Your task to perform on an android device: all mails in gmail Image 0: 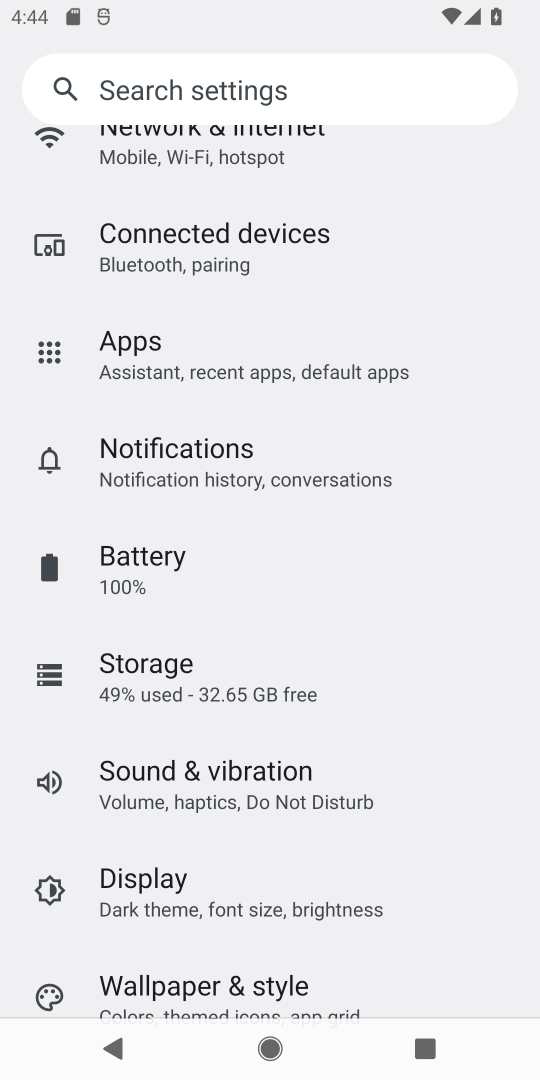
Step 0: press home button
Your task to perform on an android device: all mails in gmail Image 1: 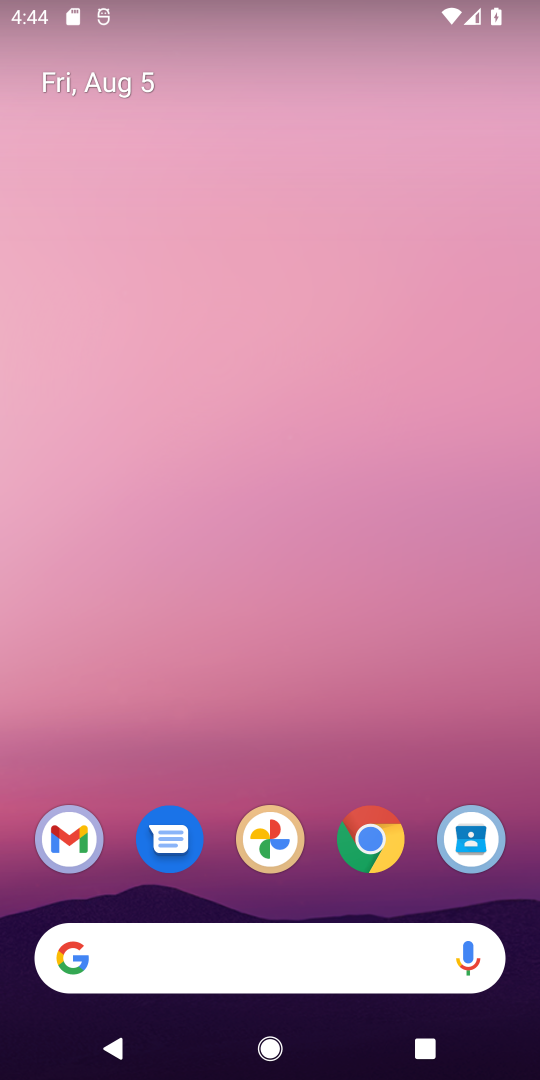
Step 1: click (73, 851)
Your task to perform on an android device: all mails in gmail Image 2: 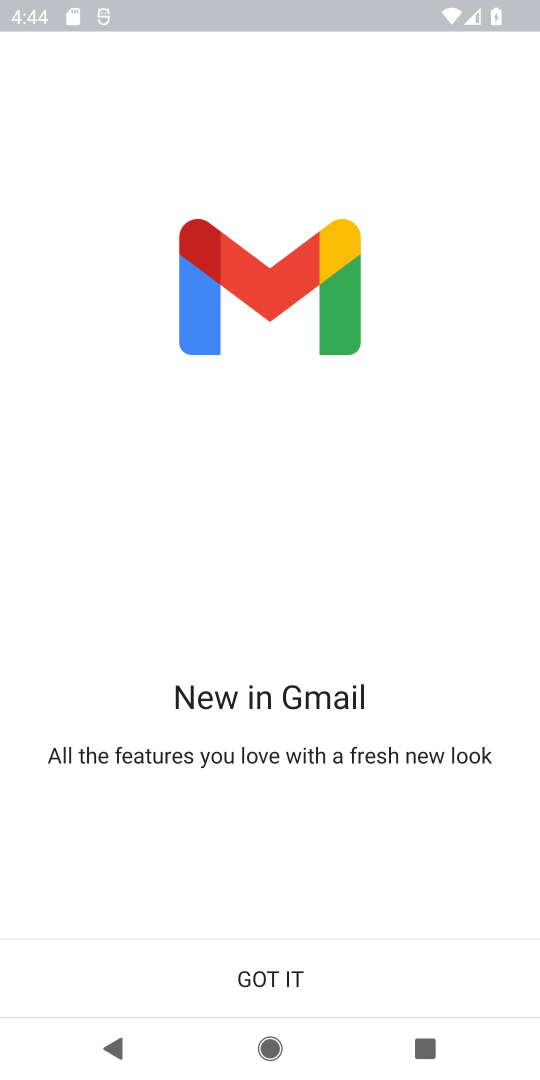
Step 2: click (281, 972)
Your task to perform on an android device: all mails in gmail Image 3: 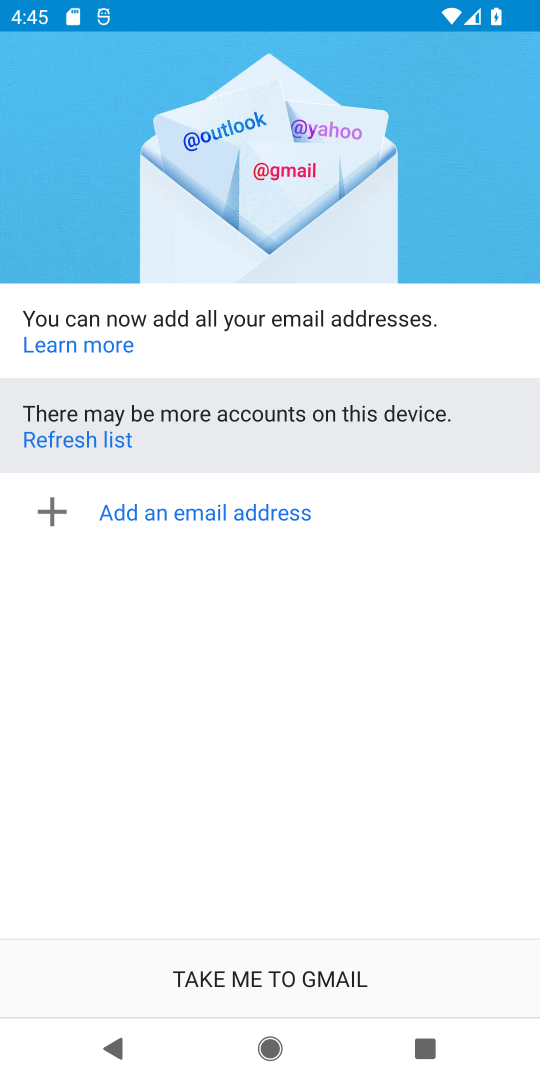
Step 3: click (290, 969)
Your task to perform on an android device: all mails in gmail Image 4: 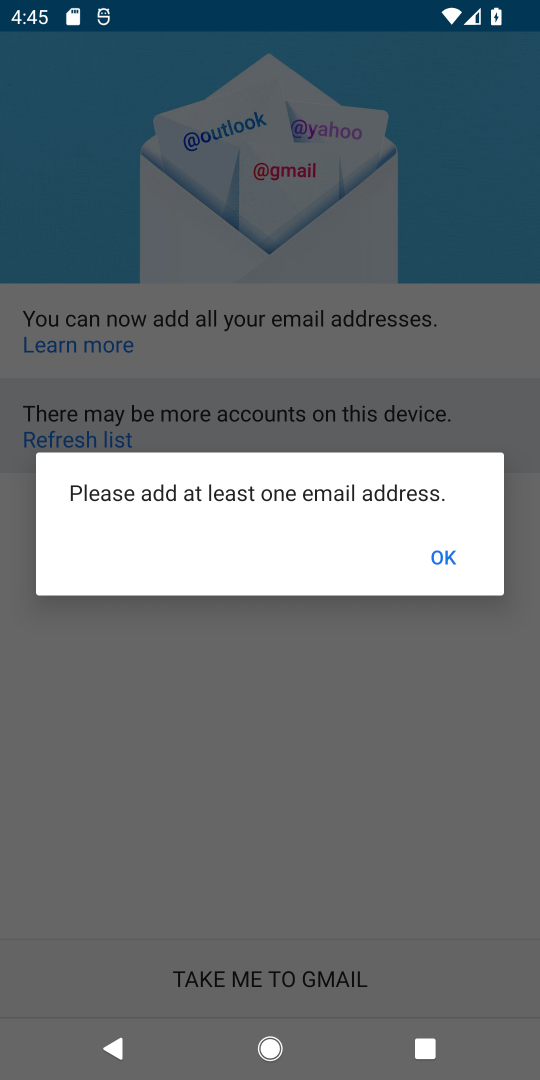
Step 4: click (426, 551)
Your task to perform on an android device: all mails in gmail Image 5: 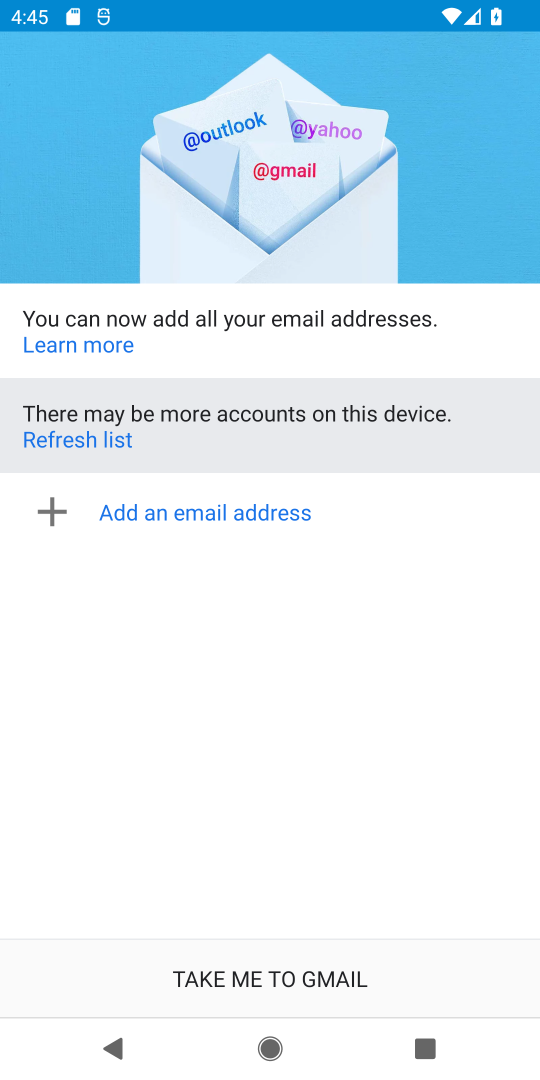
Step 5: click (318, 967)
Your task to perform on an android device: all mails in gmail Image 6: 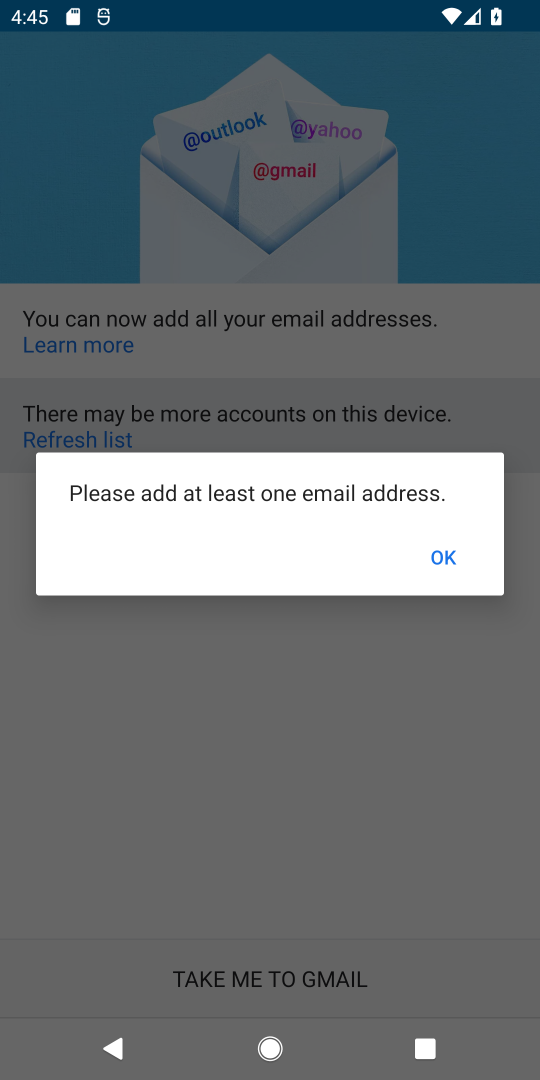
Step 6: click (432, 553)
Your task to perform on an android device: all mails in gmail Image 7: 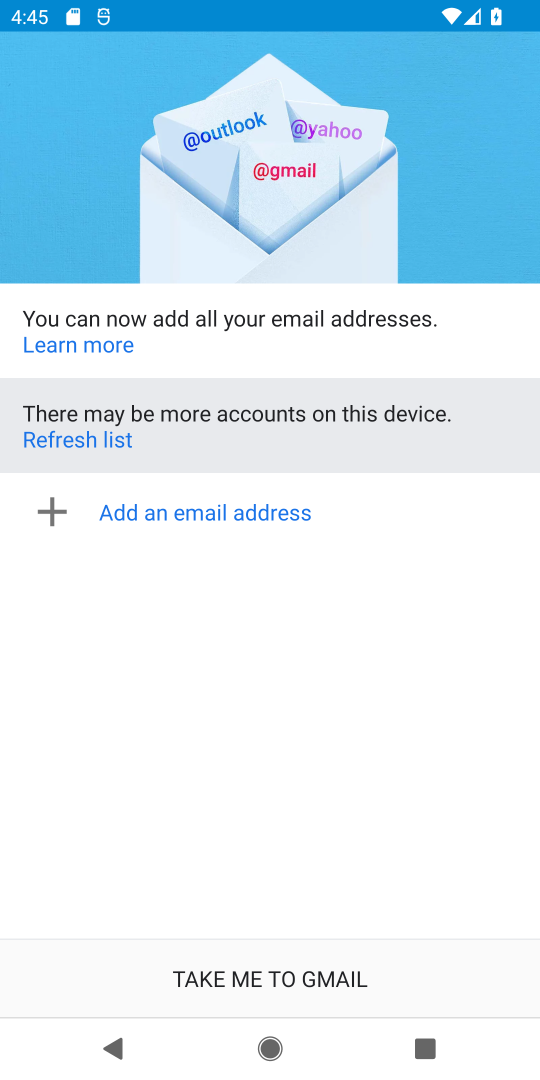
Step 7: task complete